Your task to perform on an android device: Open Youtube and go to the subscriptions tab Image 0: 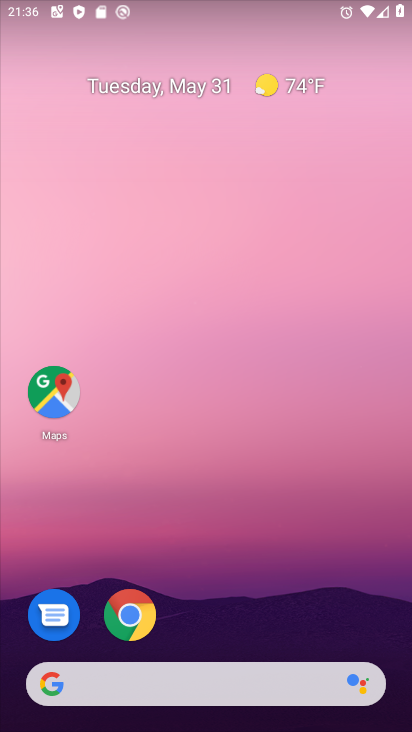
Step 0: drag from (224, 625) to (202, 169)
Your task to perform on an android device: Open Youtube and go to the subscriptions tab Image 1: 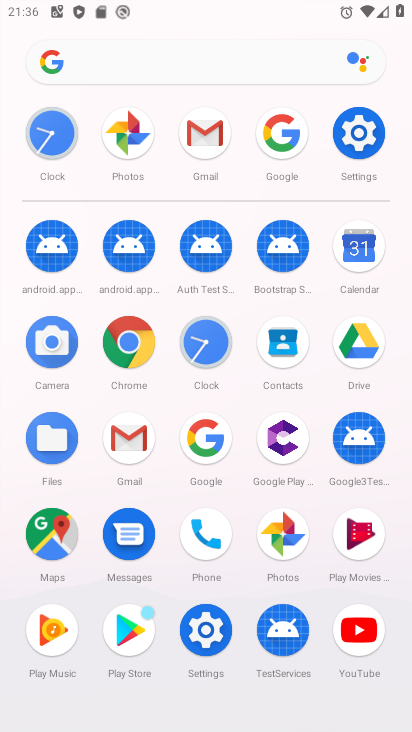
Step 1: click (346, 624)
Your task to perform on an android device: Open Youtube and go to the subscriptions tab Image 2: 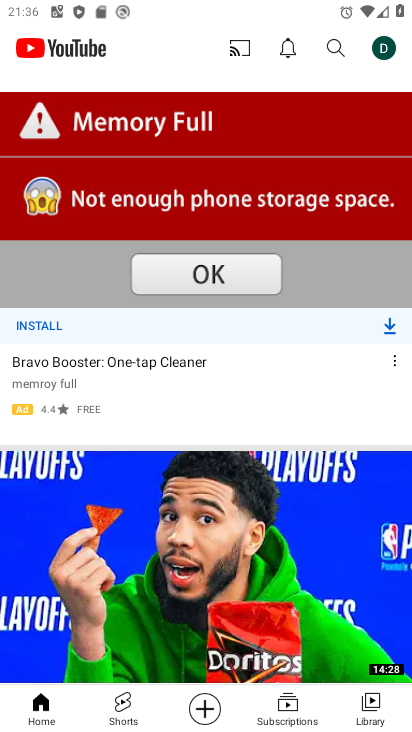
Step 2: click (294, 700)
Your task to perform on an android device: Open Youtube and go to the subscriptions tab Image 3: 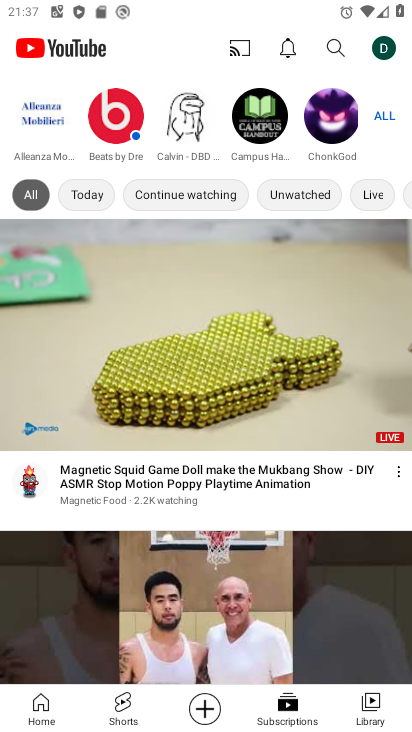
Step 3: task complete